Your task to perform on an android device: Go to sound settings Image 0: 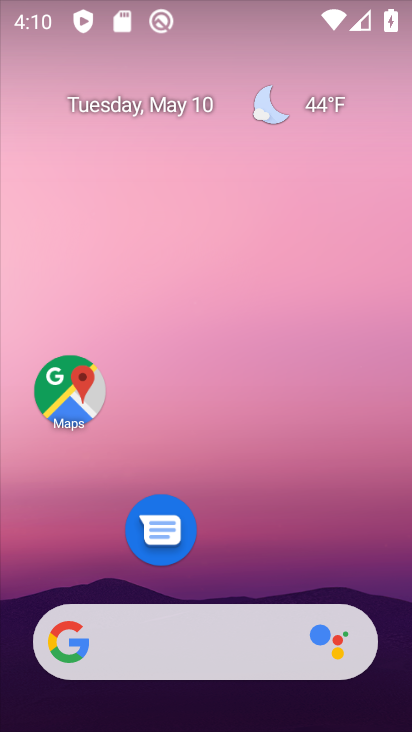
Step 0: drag from (237, 545) to (365, 4)
Your task to perform on an android device: Go to sound settings Image 1: 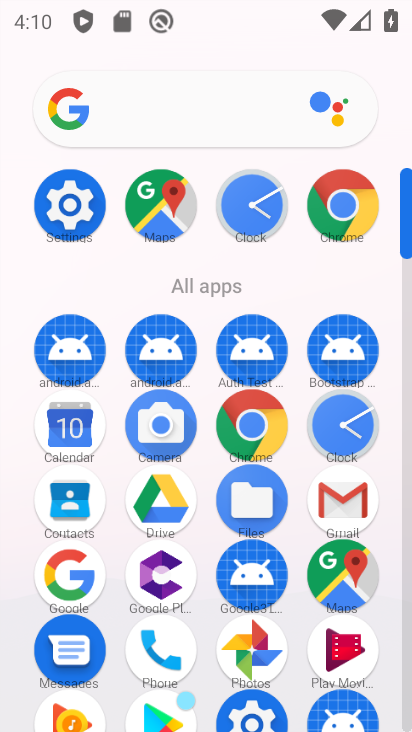
Step 1: click (55, 210)
Your task to perform on an android device: Go to sound settings Image 2: 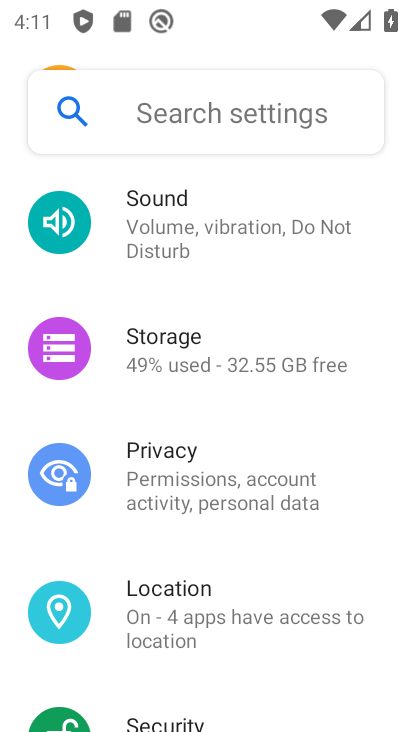
Step 2: click (181, 229)
Your task to perform on an android device: Go to sound settings Image 3: 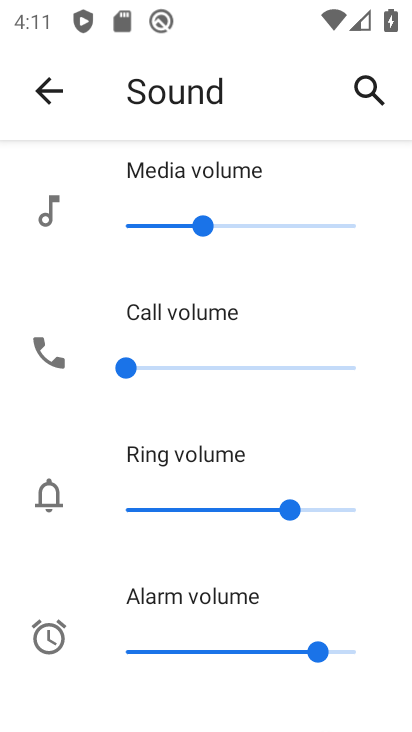
Step 3: task complete